Your task to perform on an android device: Show me popular videos on Youtube Image 0: 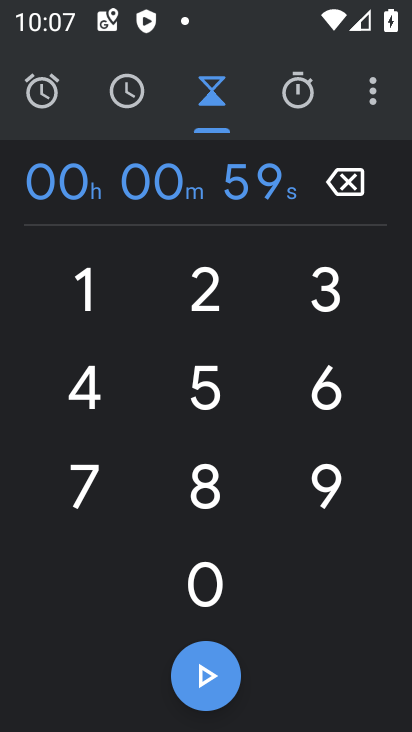
Step 0: press home button
Your task to perform on an android device: Show me popular videos on Youtube Image 1: 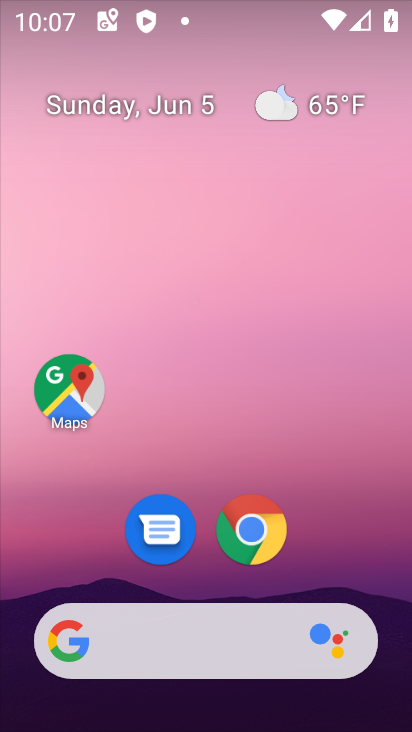
Step 1: drag from (285, 704) to (401, 30)
Your task to perform on an android device: Show me popular videos on Youtube Image 2: 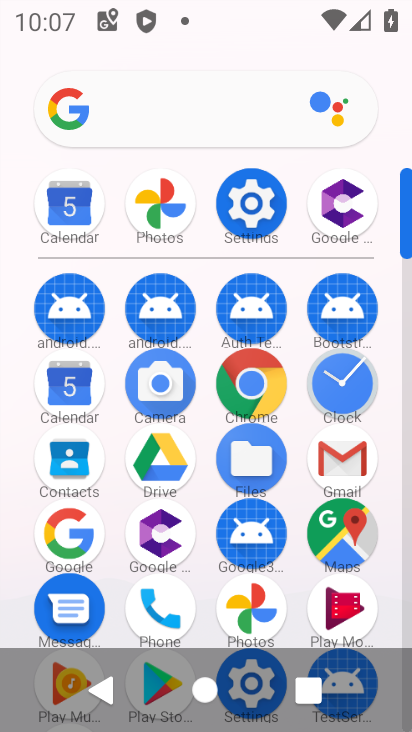
Step 2: drag from (306, 586) to (288, 20)
Your task to perform on an android device: Show me popular videos on Youtube Image 3: 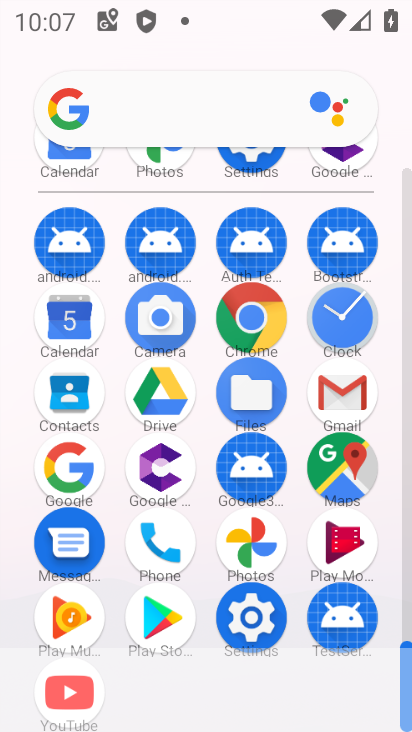
Step 3: click (46, 698)
Your task to perform on an android device: Show me popular videos on Youtube Image 4: 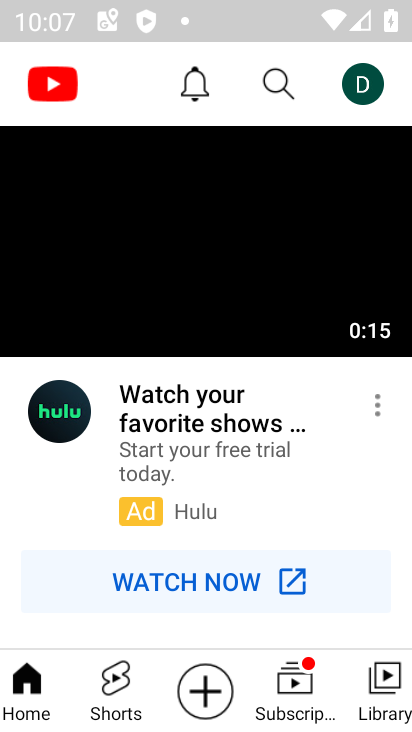
Step 4: task complete